Your task to perform on an android device: What's the weather going to be tomorrow? Image 0: 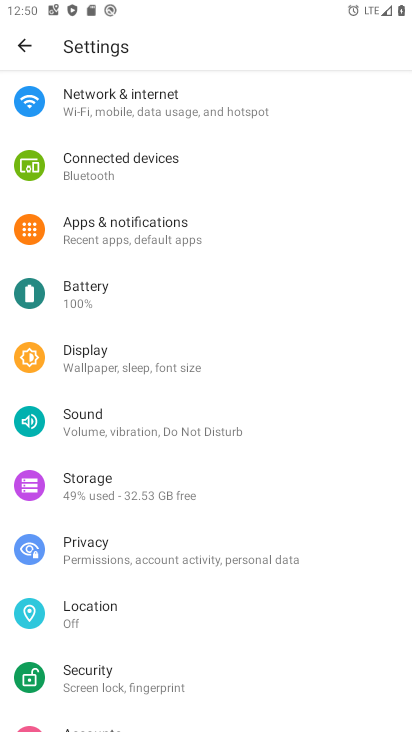
Step 0: press home button
Your task to perform on an android device: What's the weather going to be tomorrow? Image 1: 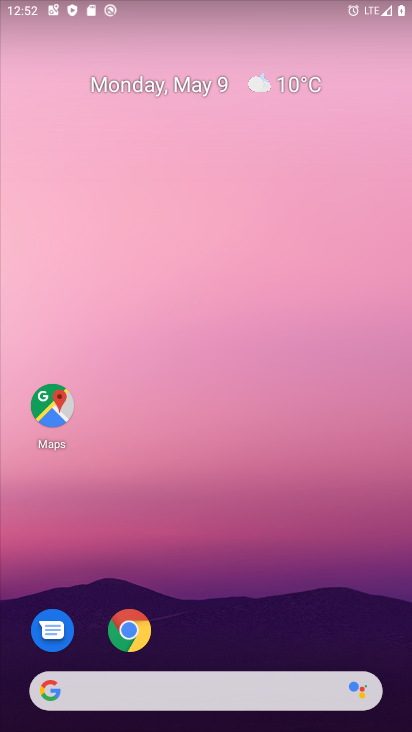
Step 1: click (196, 706)
Your task to perform on an android device: What's the weather going to be tomorrow? Image 2: 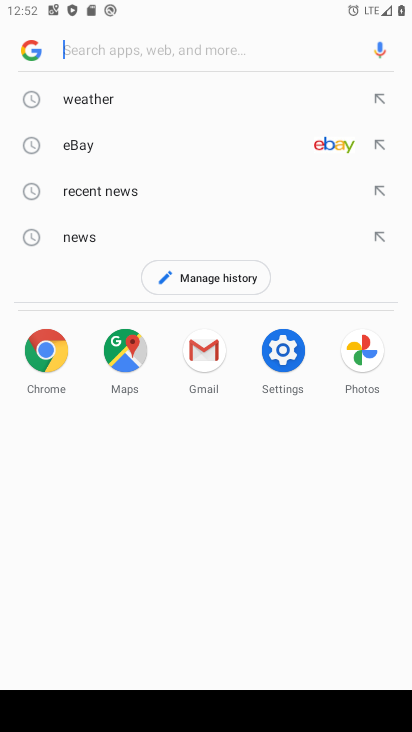
Step 2: click (131, 97)
Your task to perform on an android device: What's the weather going to be tomorrow? Image 3: 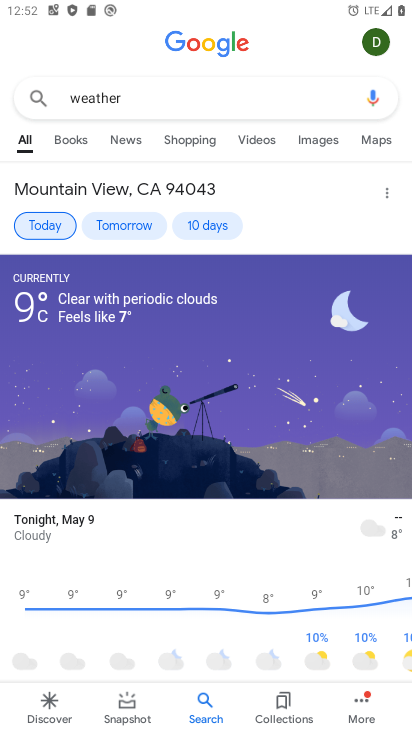
Step 3: click (129, 234)
Your task to perform on an android device: What's the weather going to be tomorrow? Image 4: 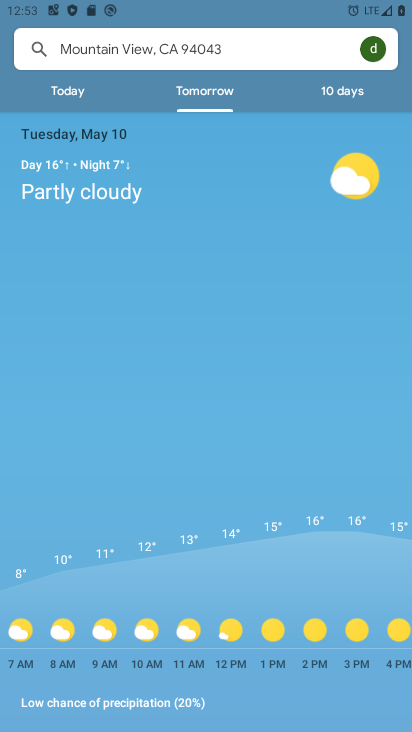
Step 4: task complete